Your task to perform on an android device: turn on airplane mode Image 0: 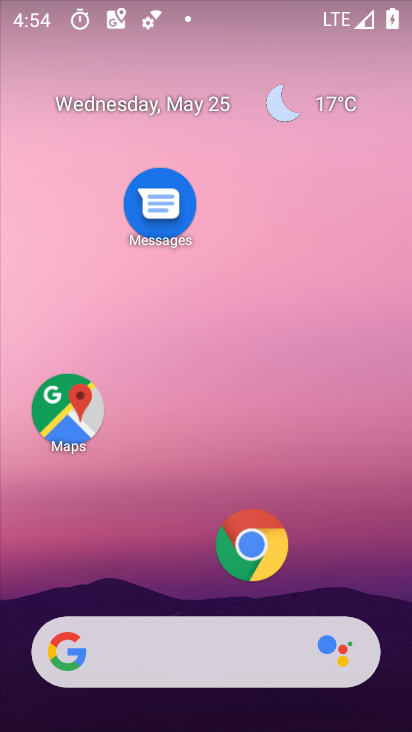
Step 0: drag from (133, 552) to (226, 189)
Your task to perform on an android device: turn on airplane mode Image 1: 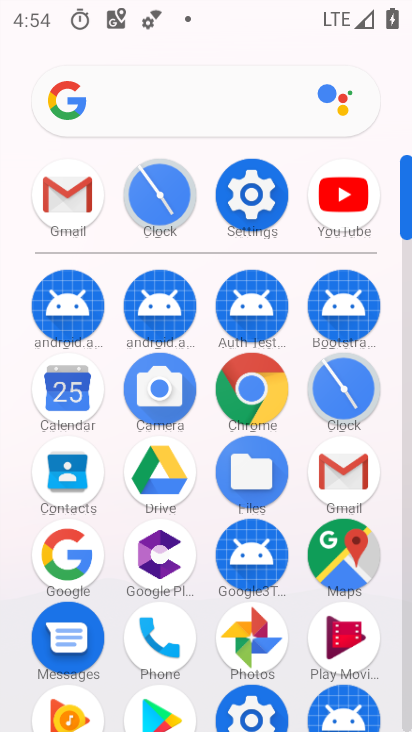
Step 1: click (247, 194)
Your task to perform on an android device: turn on airplane mode Image 2: 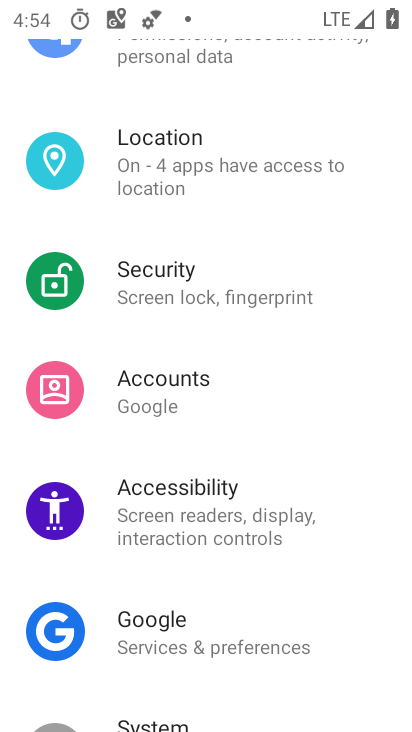
Step 2: drag from (246, 189) to (226, 440)
Your task to perform on an android device: turn on airplane mode Image 3: 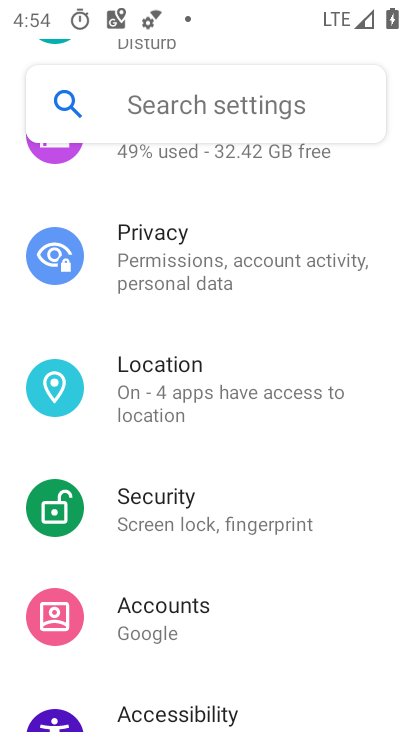
Step 3: drag from (258, 198) to (193, 459)
Your task to perform on an android device: turn on airplane mode Image 4: 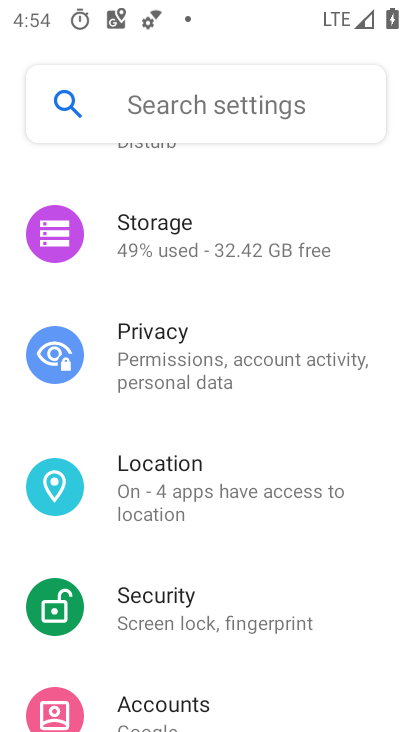
Step 4: drag from (228, 258) to (197, 478)
Your task to perform on an android device: turn on airplane mode Image 5: 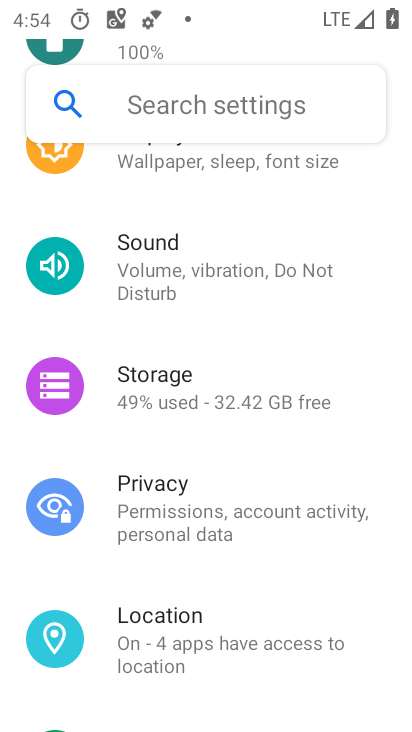
Step 5: drag from (272, 217) to (261, 471)
Your task to perform on an android device: turn on airplane mode Image 6: 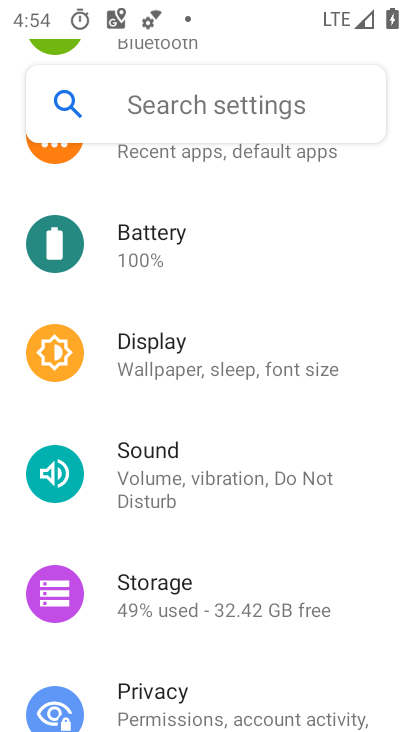
Step 6: drag from (284, 228) to (248, 469)
Your task to perform on an android device: turn on airplane mode Image 7: 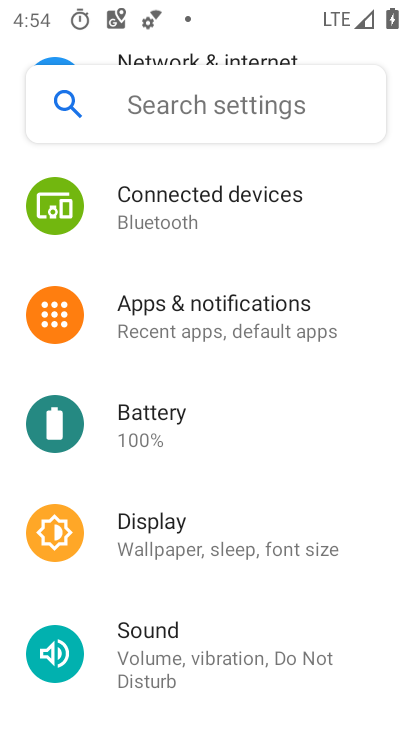
Step 7: drag from (291, 250) to (228, 543)
Your task to perform on an android device: turn on airplane mode Image 8: 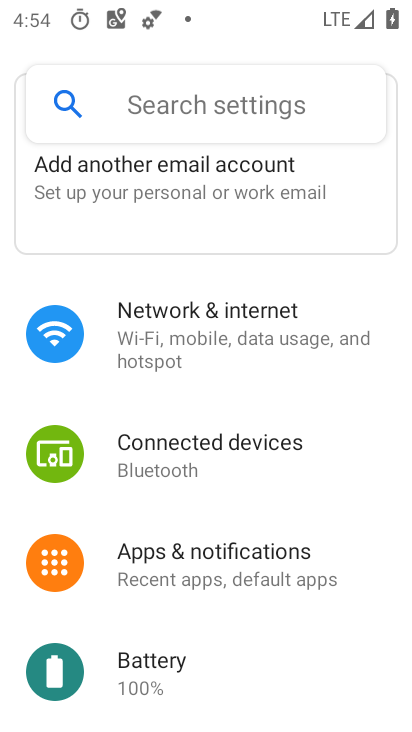
Step 8: click (230, 312)
Your task to perform on an android device: turn on airplane mode Image 9: 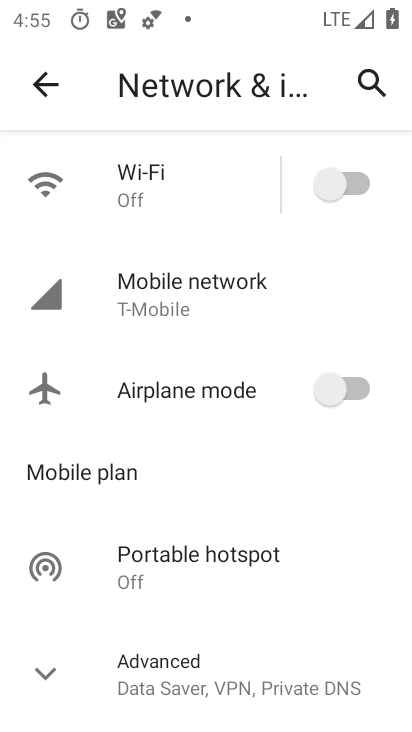
Step 9: click (355, 382)
Your task to perform on an android device: turn on airplane mode Image 10: 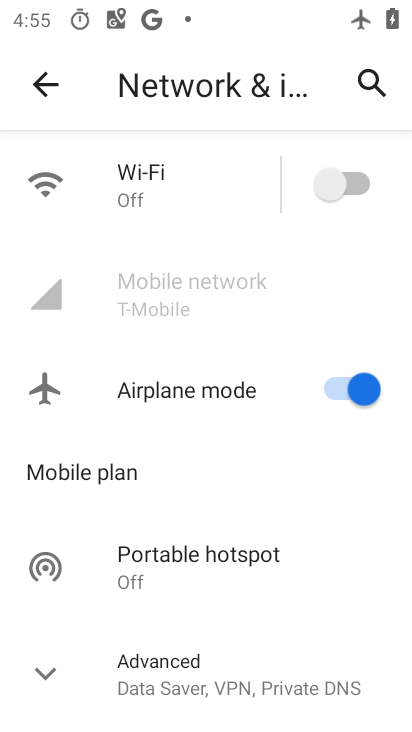
Step 10: task complete